Your task to perform on an android device: Go to location settings Image 0: 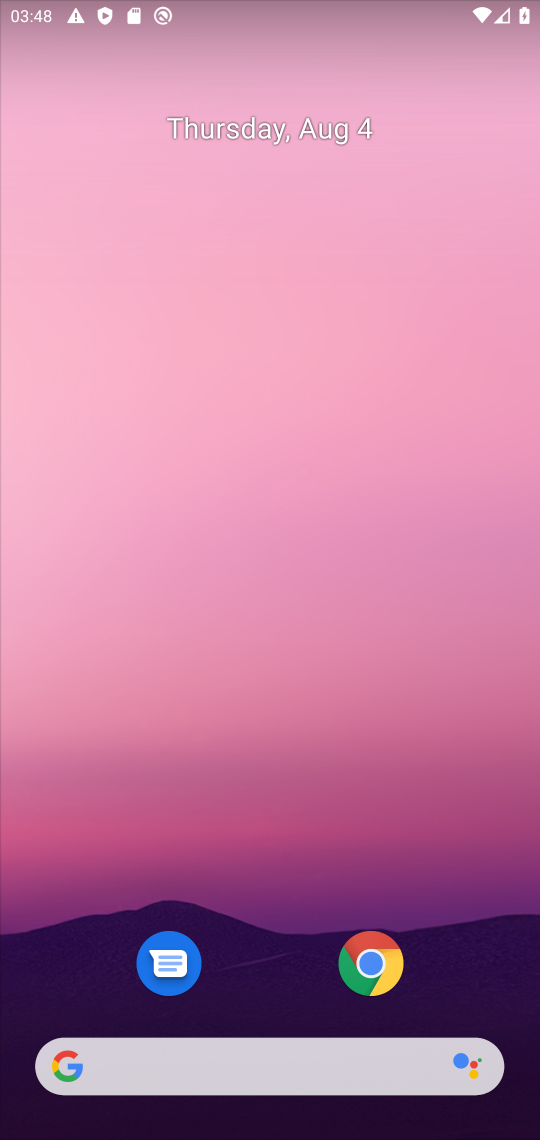
Step 0: drag from (442, 1009) to (411, 6)
Your task to perform on an android device: Go to location settings Image 1: 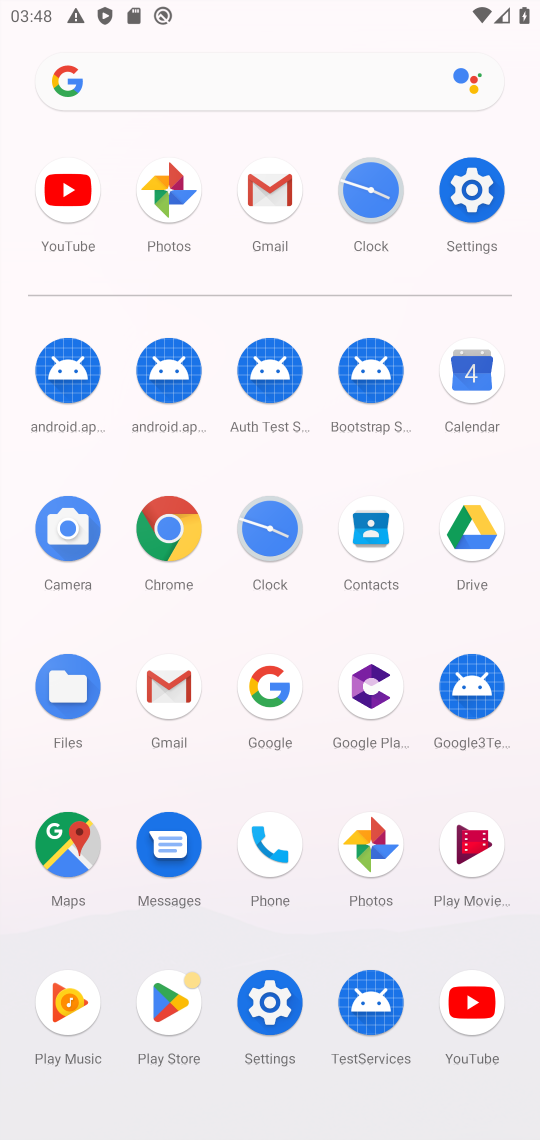
Step 1: click (474, 181)
Your task to perform on an android device: Go to location settings Image 2: 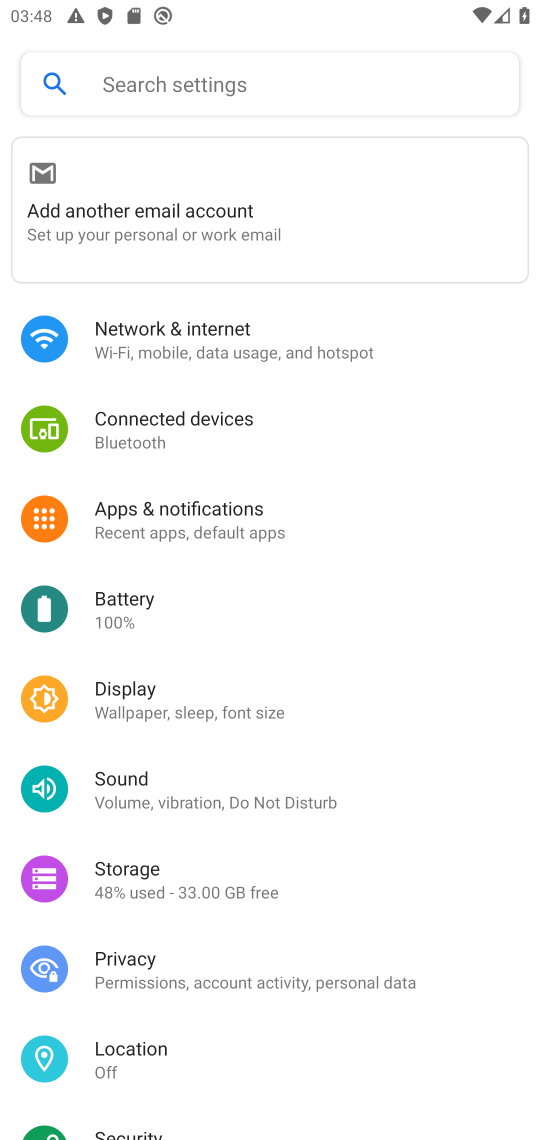
Step 2: drag from (494, 969) to (504, 703)
Your task to perform on an android device: Go to location settings Image 3: 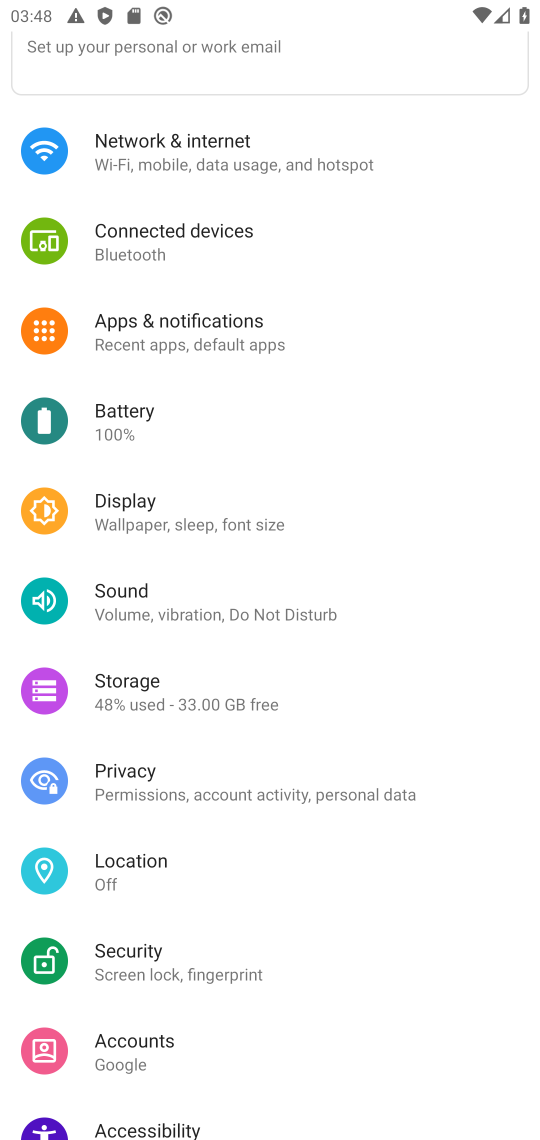
Step 3: click (111, 870)
Your task to perform on an android device: Go to location settings Image 4: 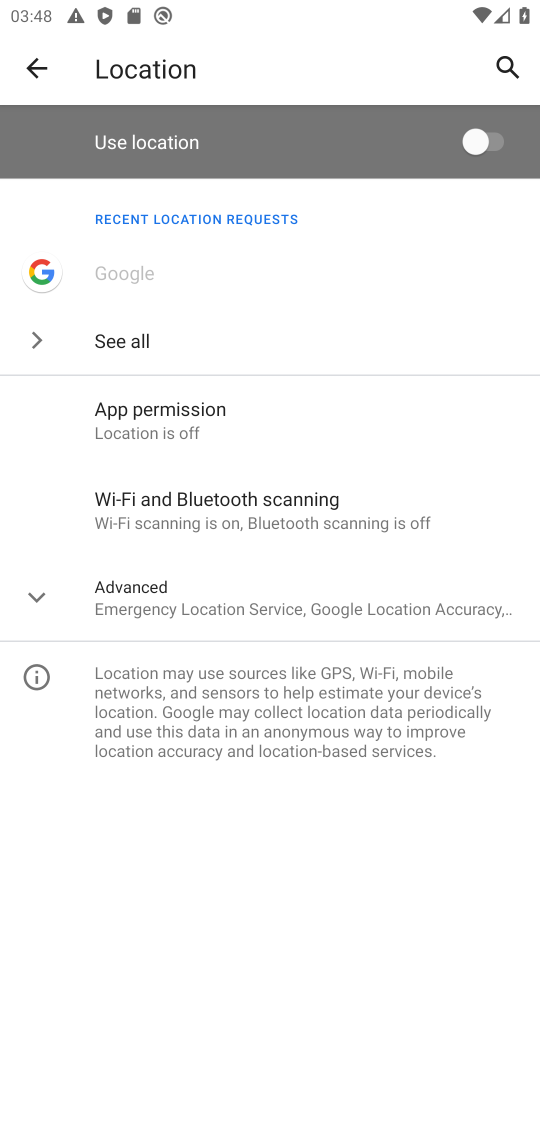
Step 4: task complete